Your task to perform on an android device: turn off translation in the chrome app Image 0: 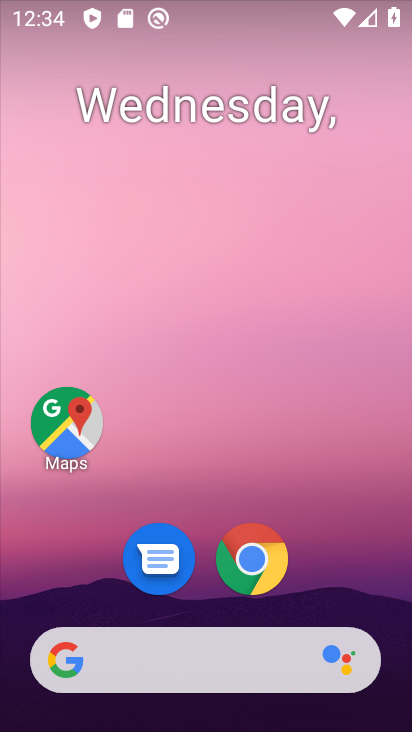
Step 0: click (266, 552)
Your task to perform on an android device: turn off translation in the chrome app Image 1: 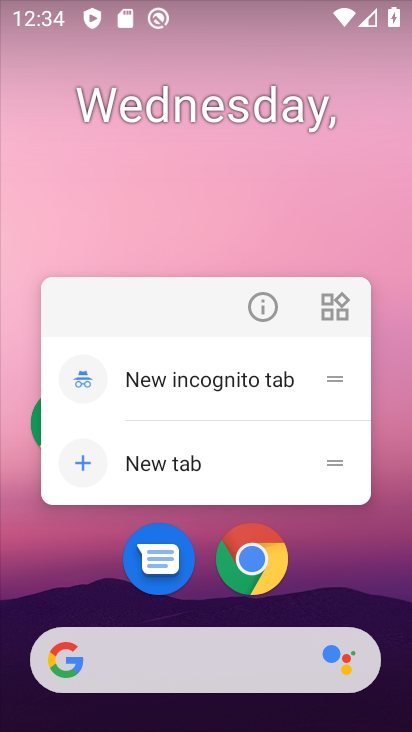
Step 1: click (270, 300)
Your task to perform on an android device: turn off translation in the chrome app Image 2: 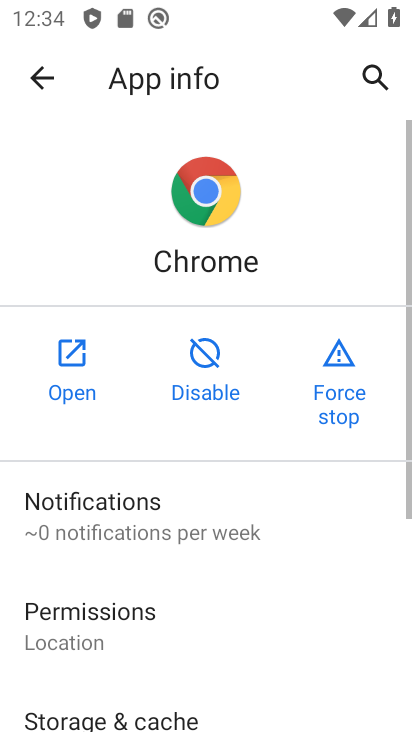
Step 2: click (83, 369)
Your task to perform on an android device: turn off translation in the chrome app Image 3: 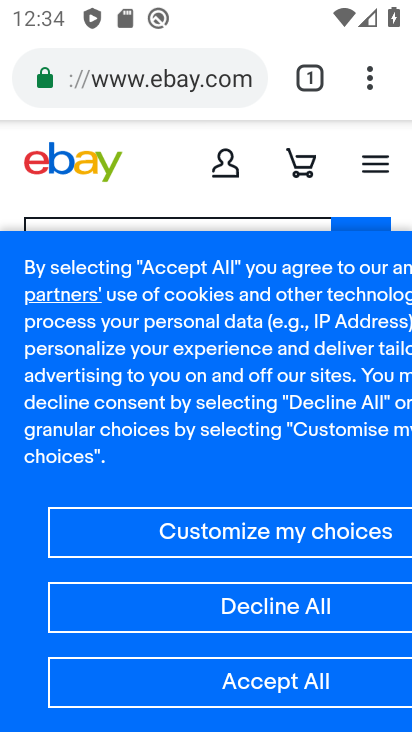
Step 3: drag from (366, 75) to (93, 615)
Your task to perform on an android device: turn off translation in the chrome app Image 4: 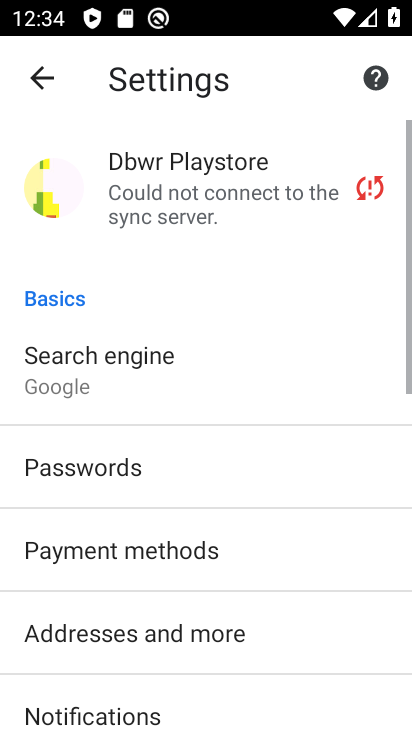
Step 4: drag from (92, 614) to (87, 251)
Your task to perform on an android device: turn off translation in the chrome app Image 5: 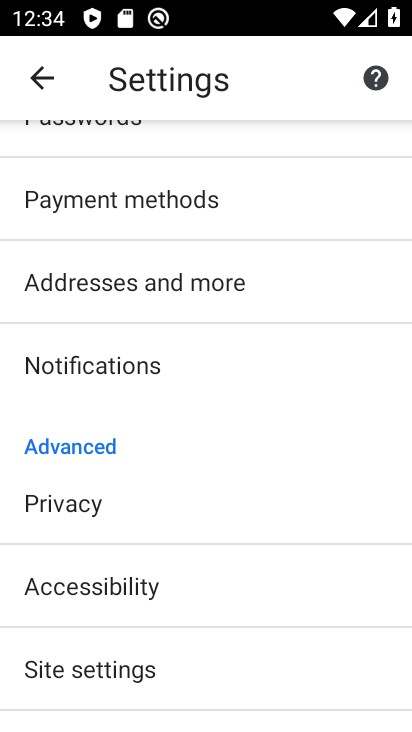
Step 5: drag from (185, 683) to (198, 341)
Your task to perform on an android device: turn off translation in the chrome app Image 6: 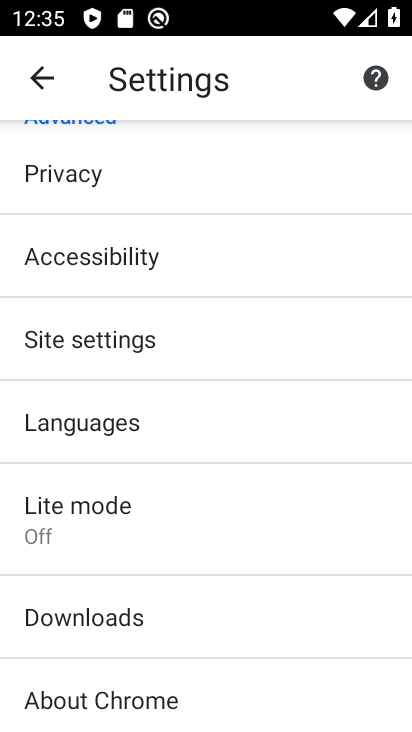
Step 6: click (82, 421)
Your task to perform on an android device: turn off translation in the chrome app Image 7: 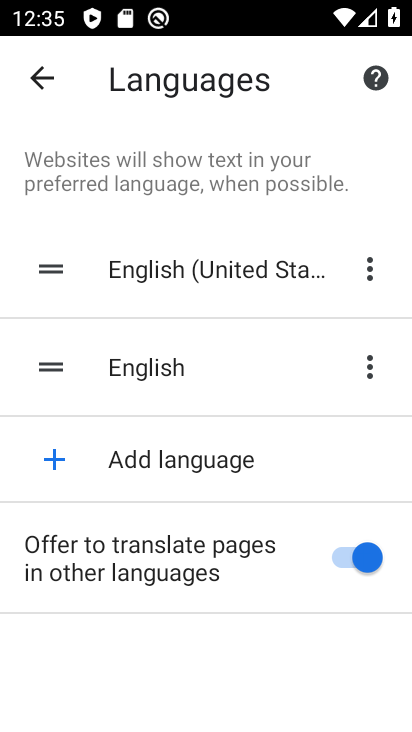
Step 7: click (357, 557)
Your task to perform on an android device: turn off translation in the chrome app Image 8: 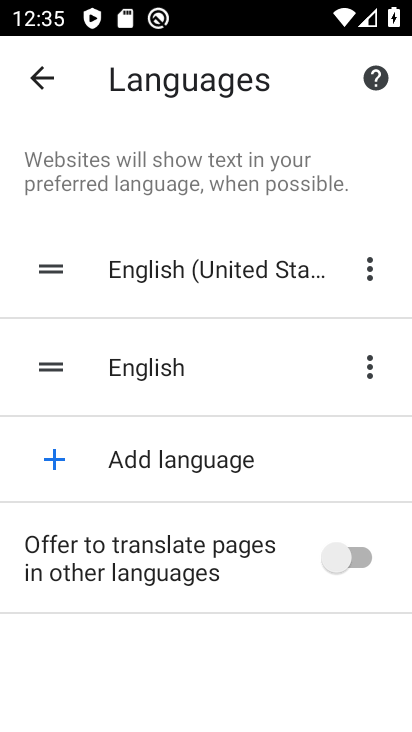
Step 8: task complete